Your task to perform on an android device: Find coffee shops on Maps Image 0: 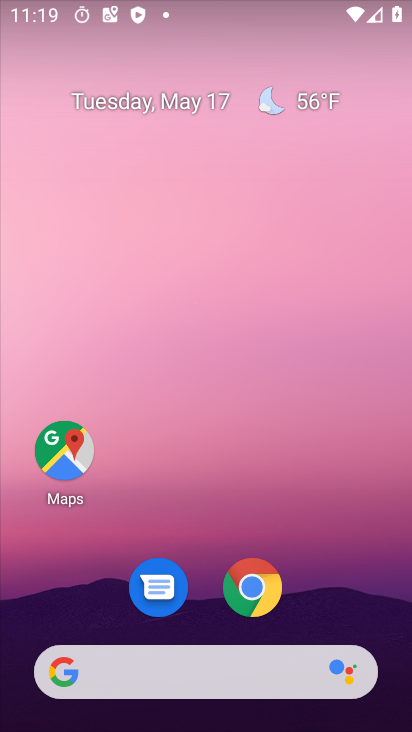
Step 0: drag from (317, 548) to (210, 6)
Your task to perform on an android device: Find coffee shops on Maps Image 1: 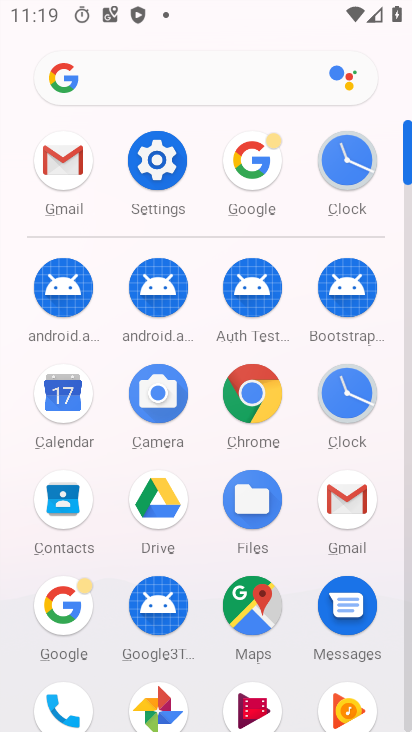
Step 1: click (251, 608)
Your task to perform on an android device: Find coffee shops on Maps Image 2: 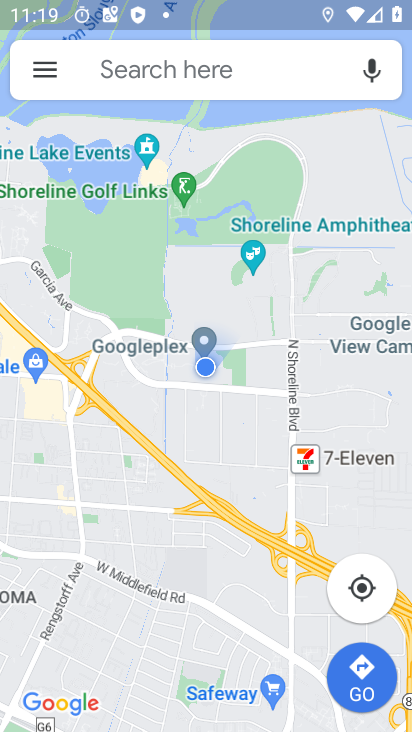
Step 2: click (192, 79)
Your task to perform on an android device: Find coffee shops on Maps Image 3: 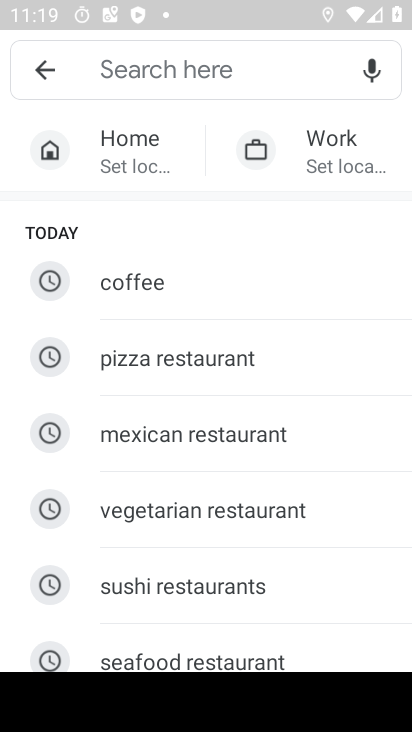
Step 3: click (205, 52)
Your task to perform on an android device: Find coffee shops on Maps Image 4: 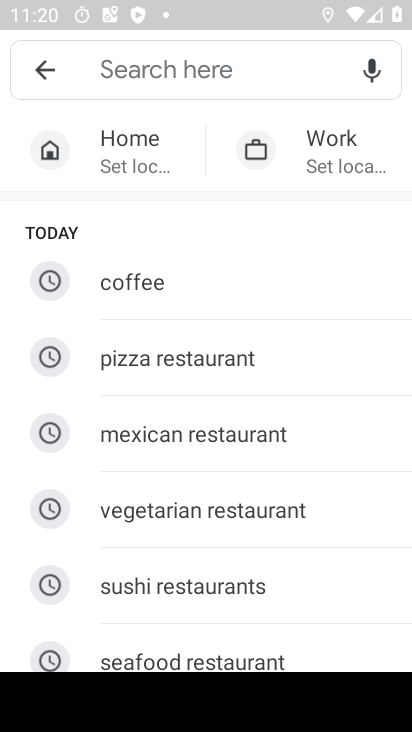
Step 4: type "coffee shops"
Your task to perform on an android device: Find coffee shops on Maps Image 5: 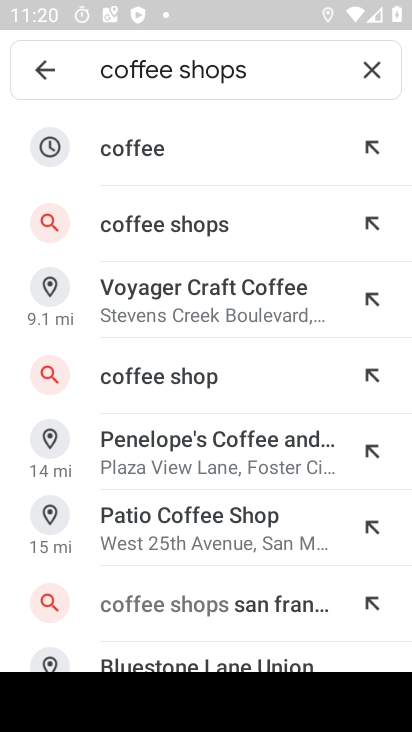
Step 5: click (150, 221)
Your task to perform on an android device: Find coffee shops on Maps Image 6: 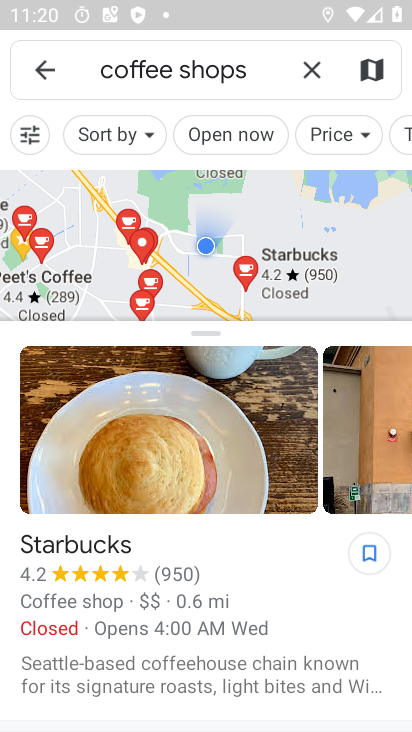
Step 6: task complete